Your task to perform on an android device: turn off javascript in the chrome app Image 0: 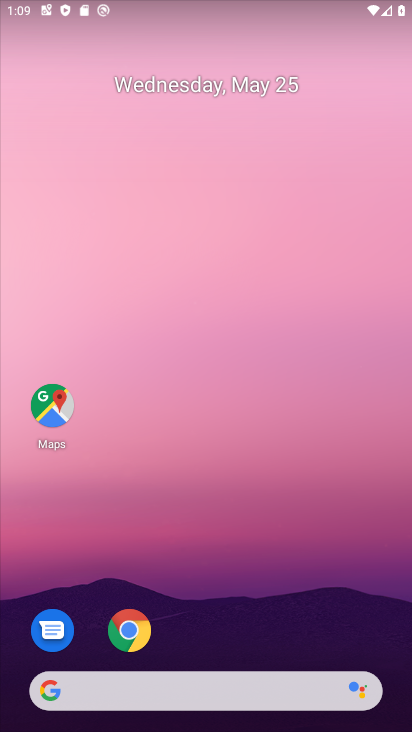
Step 0: drag from (206, 314) to (179, 140)
Your task to perform on an android device: turn off javascript in the chrome app Image 1: 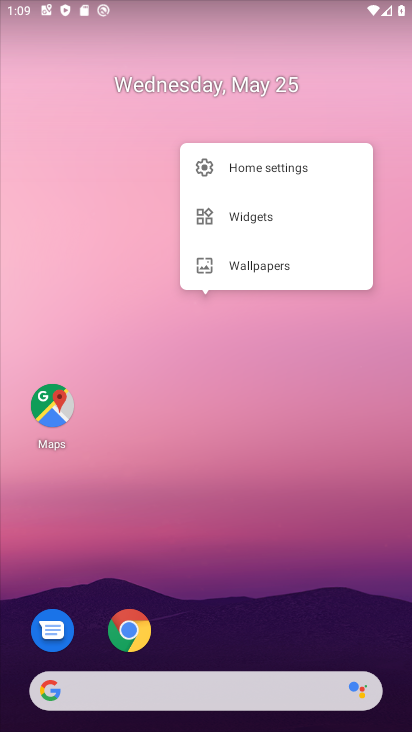
Step 1: click (179, 179)
Your task to perform on an android device: turn off javascript in the chrome app Image 2: 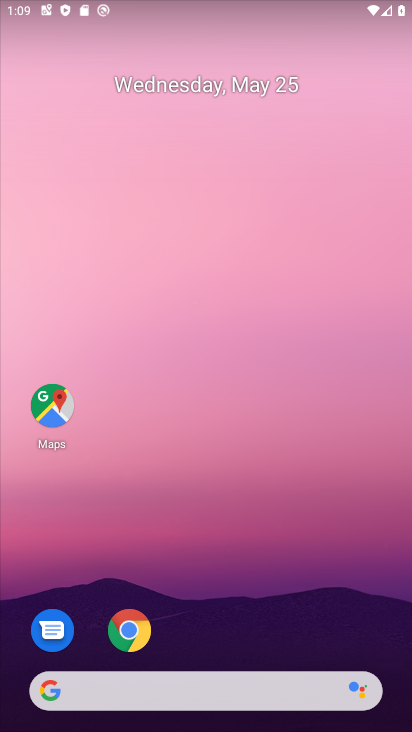
Step 2: drag from (277, 614) to (159, 63)
Your task to perform on an android device: turn off javascript in the chrome app Image 3: 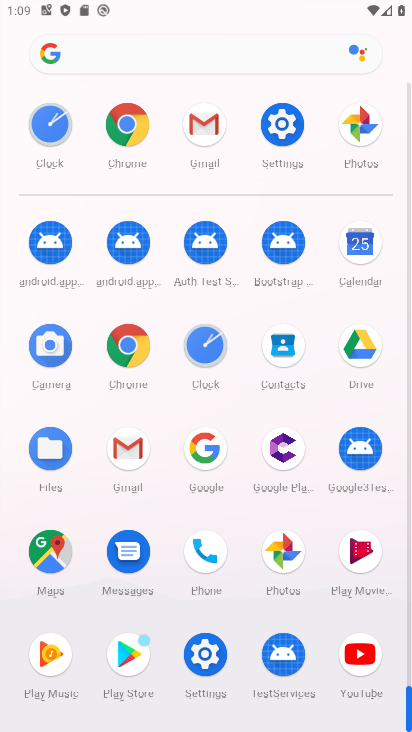
Step 3: drag from (216, 500) to (94, 85)
Your task to perform on an android device: turn off javascript in the chrome app Image 4: 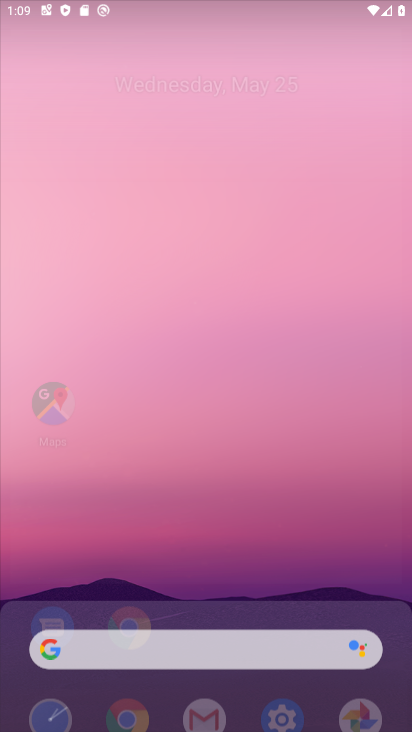
Step 4: drag from (163, 460) to (5, 23)
Your task to perform on an android device: turn off javascript in the chrome app Image 5: 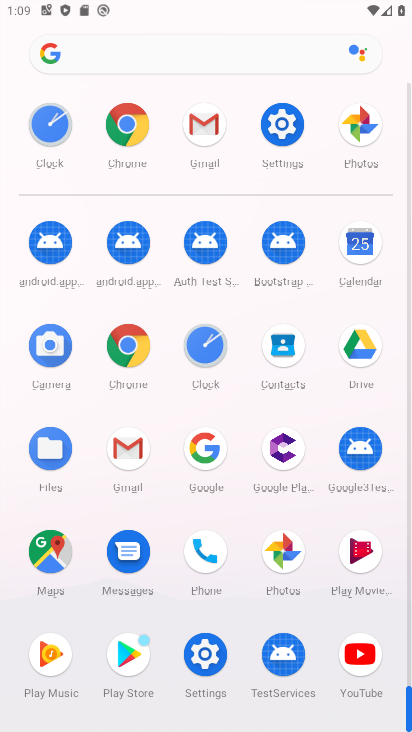
Step 5: drag from (134, 599) to (48, 37)
Your task to perform on an android device: turn off javascript in the chrome app Image 6: 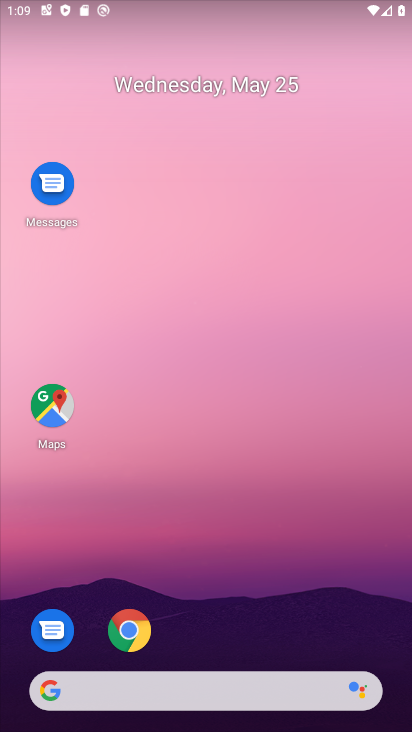
Step 6: click (95, 153)
Your task to perform on an android device: turn off javascript in the chrome app Image 7: 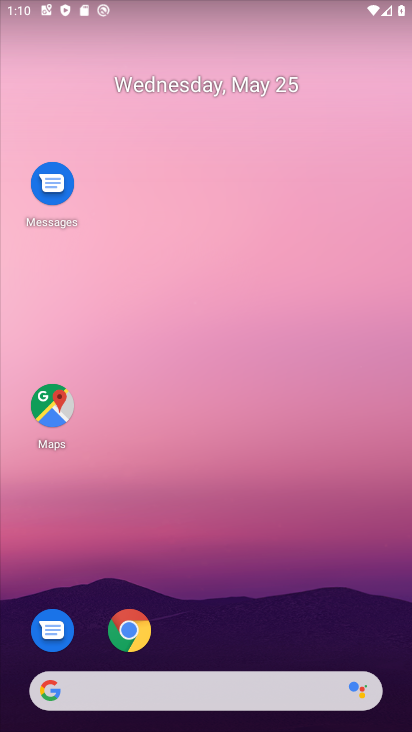
Step 7: drag from (307, 622) to (215, 145)
Your task to perform on an android device: turn off javascript in the chrome app Image 8: 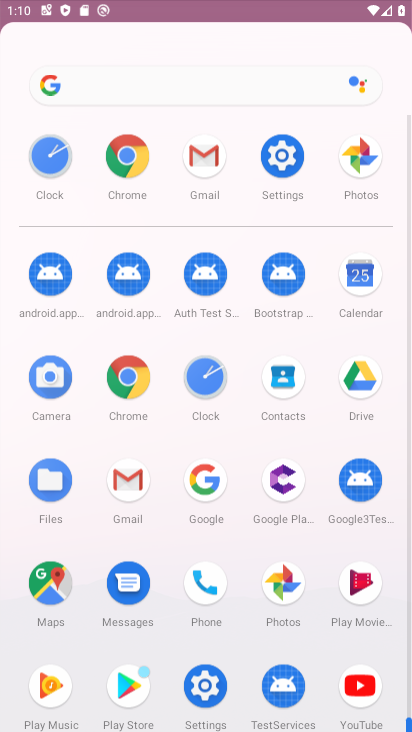
Step 8: drag from (266, 495) to (215, 74)
Your task to perform on an android device: turn off javascript in the chrome app Image 9: 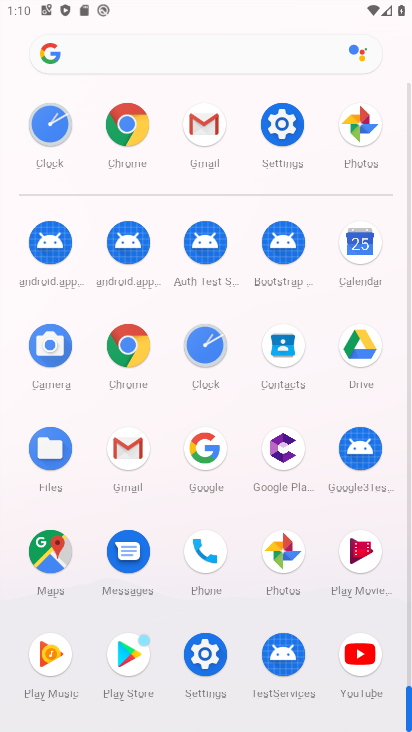
Step 9: click (130, 127)
Your task to perform on an android device: turn off javascript in the chrome app Image 10: 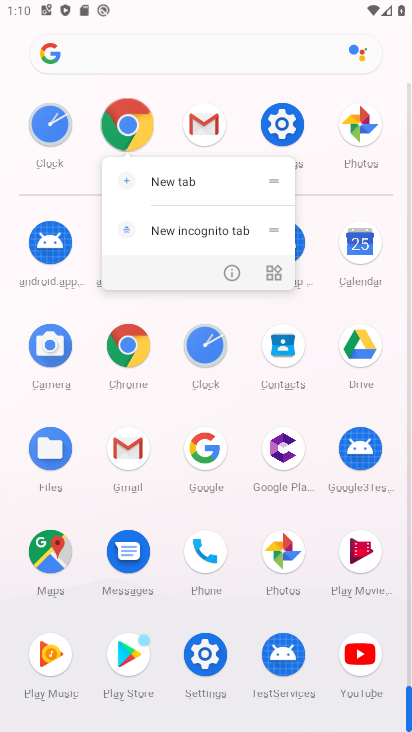
Step 10: click (131, 128)
Your task to perform on an android device: turn off javascript in the chrome app Image 11: 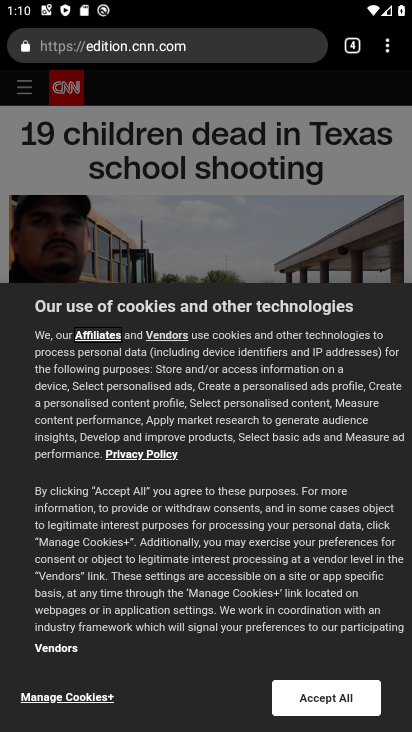
Step 11: drag from (387, 39) to (224, 599)
Your task to perform on an android device: turn off javascript in the chrome app Image 12: 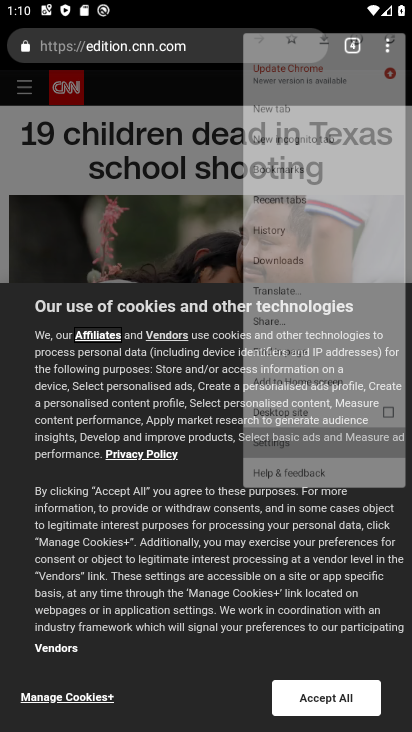
Step 12: click (227, 591)
Your task to perform on an android device: turn off javascript in the chrome app Image 13: 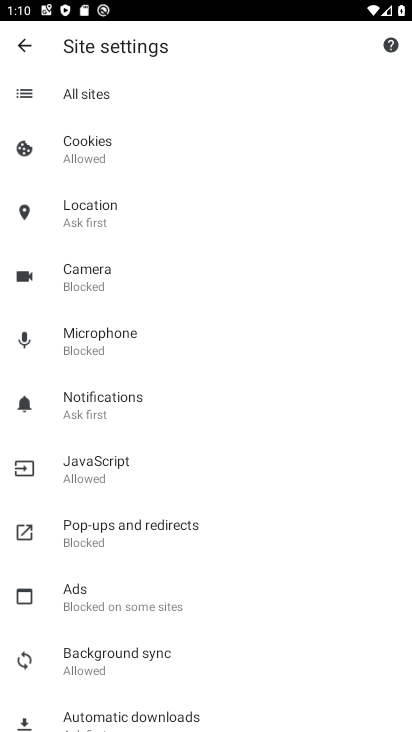
Step 13: click (85, 476)
Your task to perform on an android device: turn off javascript in the chrome app Image 14: 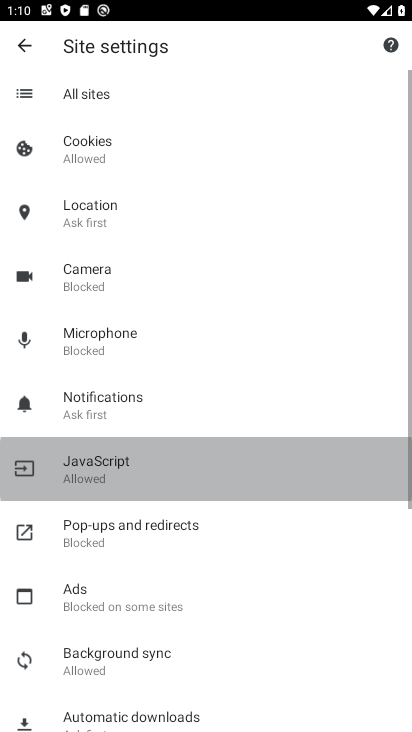
Step 14: click (85, 476)
Your task to perform on an android device: turn off javascript in the chrome app Image 15: 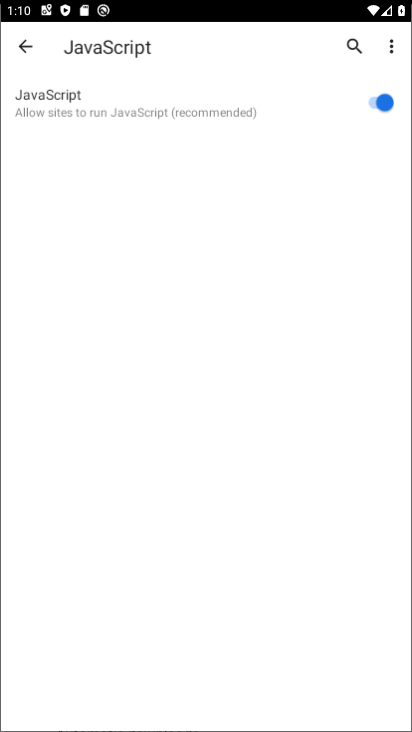
Step 15: click (86, 474)
Your task to perform on an android device: turn off javascript in the chrome app Image 16: 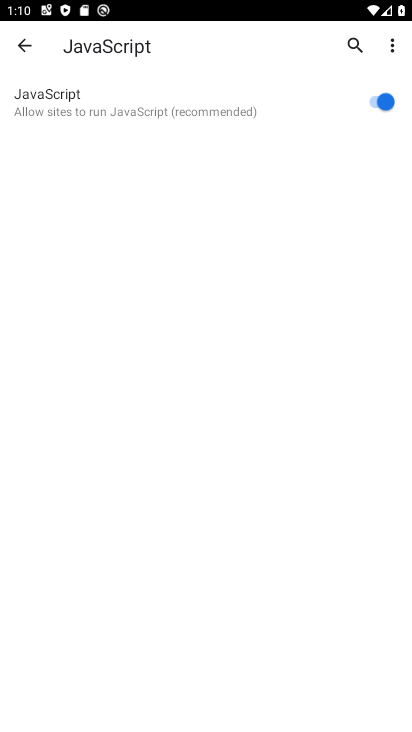
Step 16: click (382, 97)
Your task to perform on an android device: turn off javascript in the chrome app Image 17: 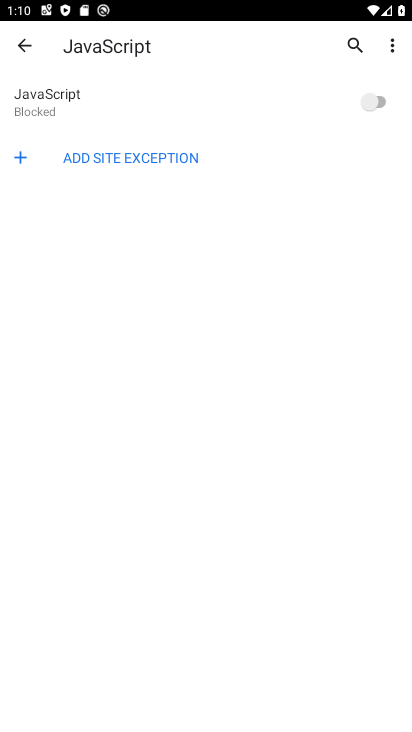
Step 17: click (378, 98)
Your task to perform on an android device: turn off javascript in the chrome app Image 18: 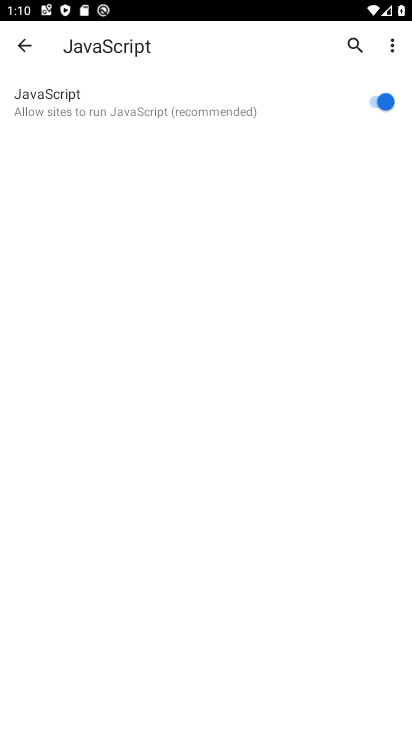
Step 18: click (380, 98)
Your task to perform on an android device: turn off javascript in the chrome app Image 19: 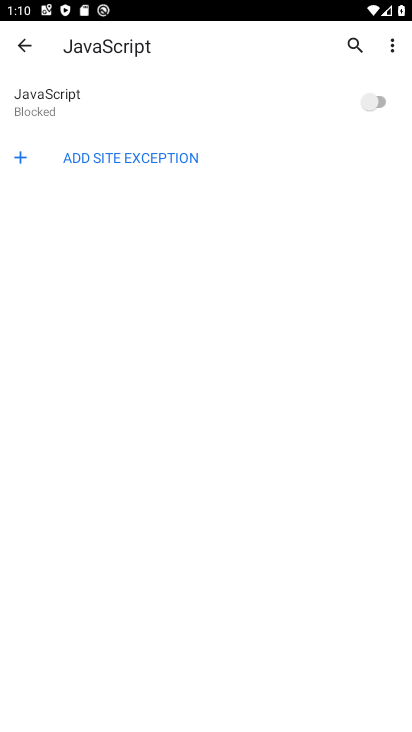
Step 19: task complete